Your task to perform on an android device: Clear the shopping cart on amazon. Image 0: 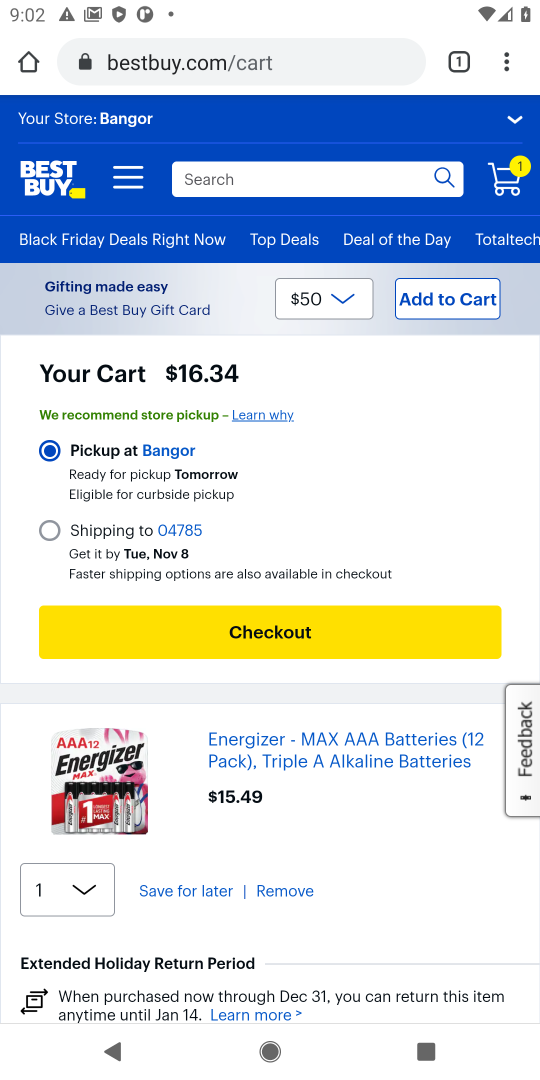
Step 0: press home button
Your task to perform on an android device: Clear the shopping cart on amazon. Image 1: 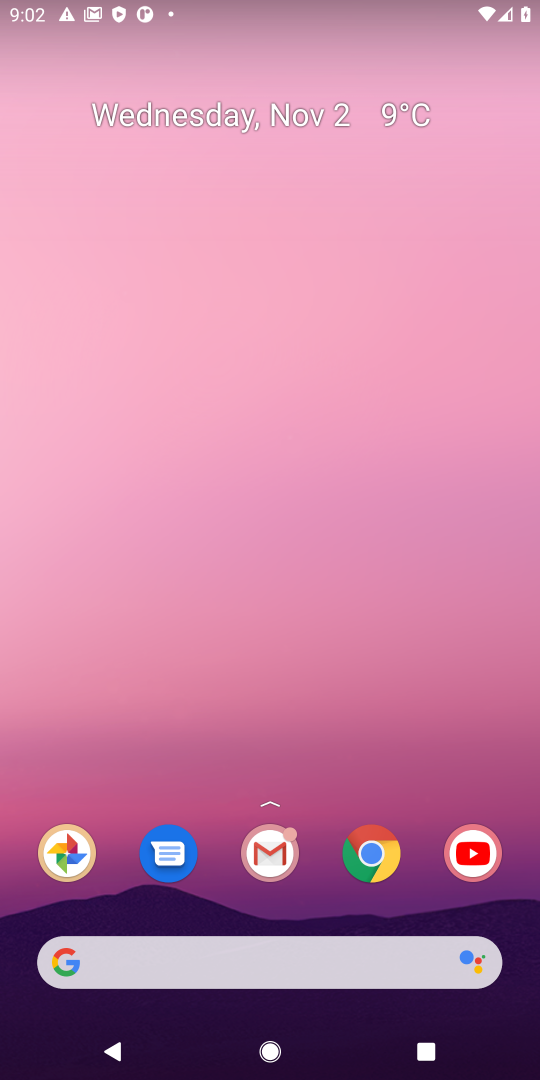
Step 1: click (374, 853)
Your task to perform on an android device: Clear the shopping cart on amazon. Image 2: 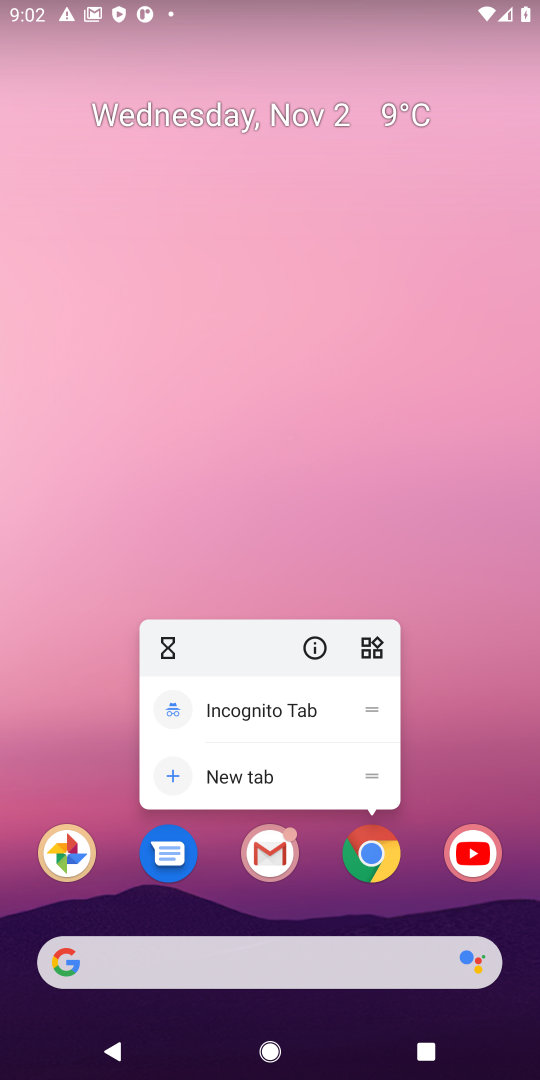
Step 2: click (367, 857)
Your task to perform on an android device: Clear the shopping cart on amazon. Image 3: 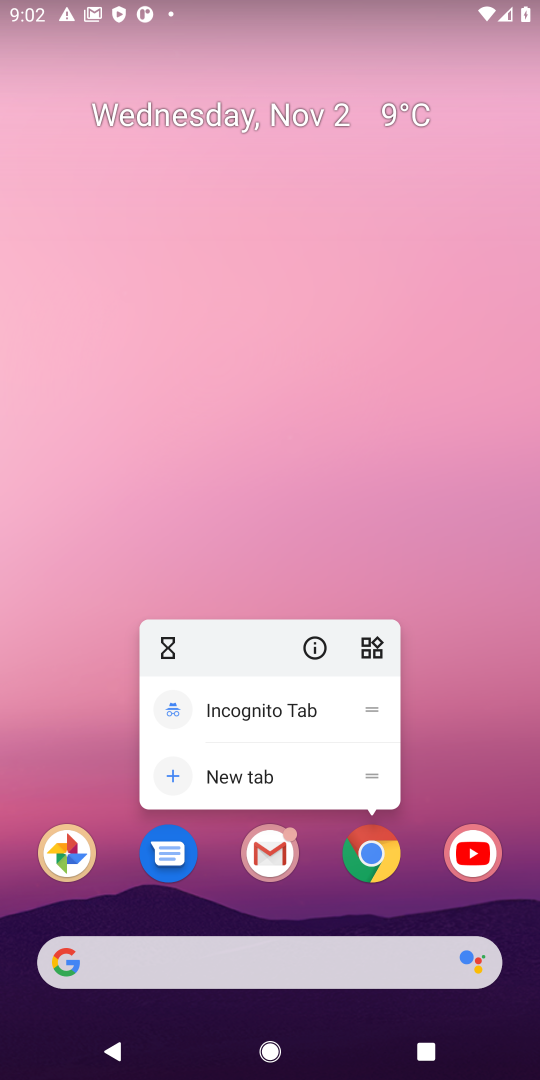
Step 3: click (367, 857)
Your task to perform on an android device: Clear the shopping cart on amazon. Image 4: 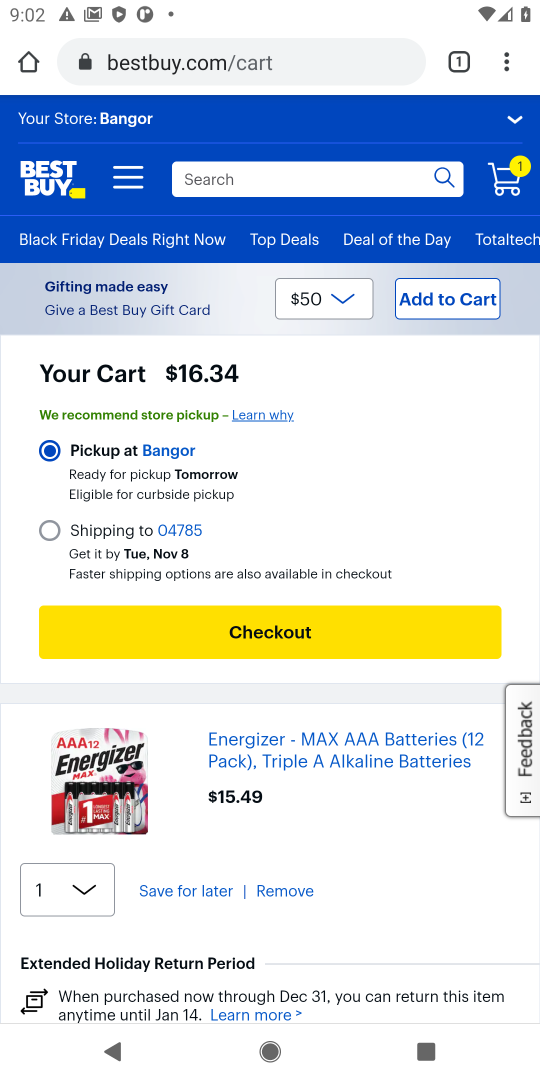
Step 4: click (309, 63)
Your task to perform on an android device: Clear the shopping cart on amazon. Image 5: 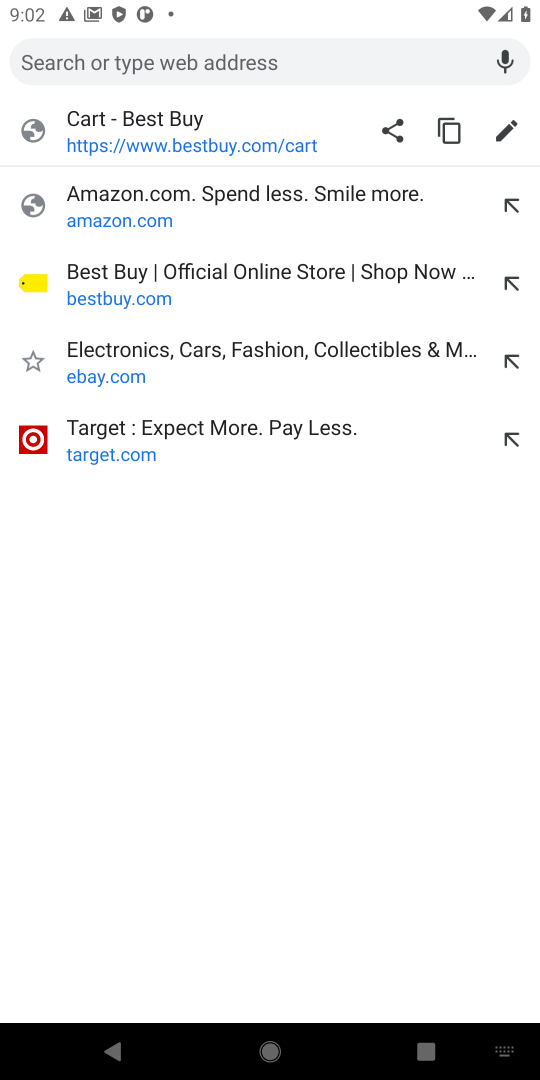
Step 5: click (138, 198)
Your task to perform on an android device: Clear the shopping cart on amazon. Image 6: 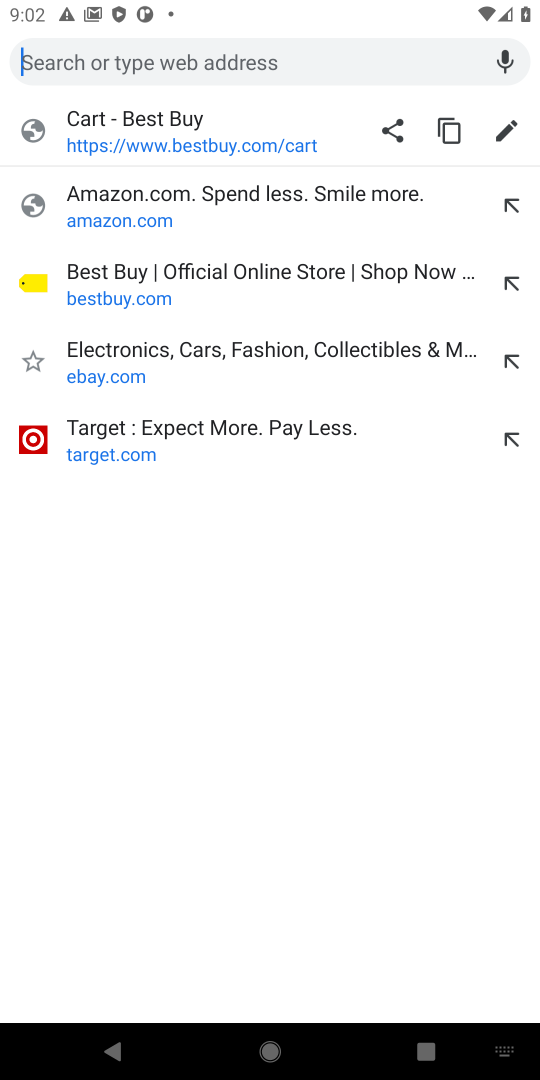
Step 6: click (127, 213)
Your task to perform on an android device: Clear the shopping cart on amazon. Image 7: 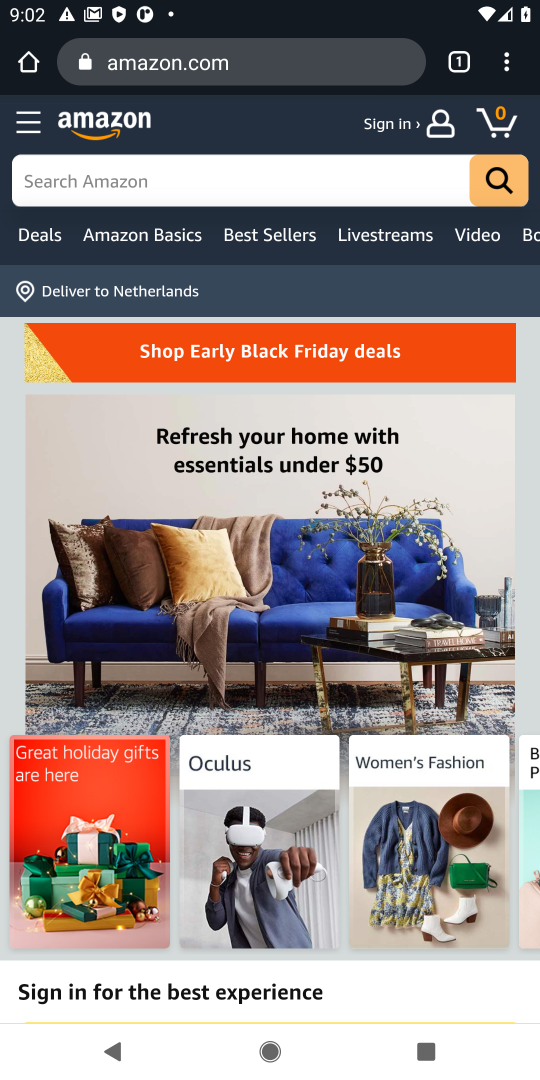
Step 7: click (497, 123)
Your task to perform on an android device: Clear the shopping cart on amazon. Image 8: 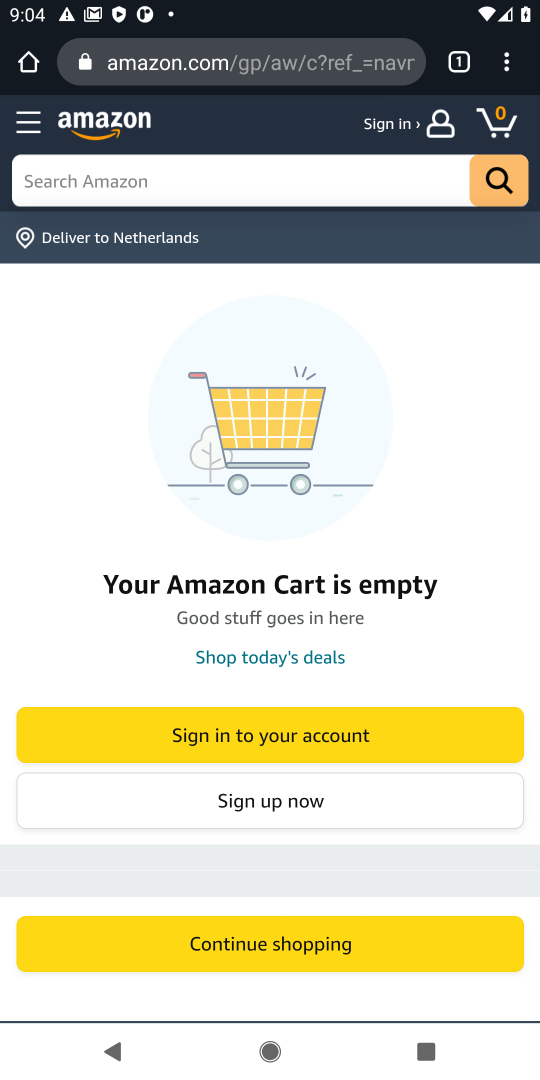
Step 8: task complete